Your task to perform on an android device: Show me recent news Image 0: 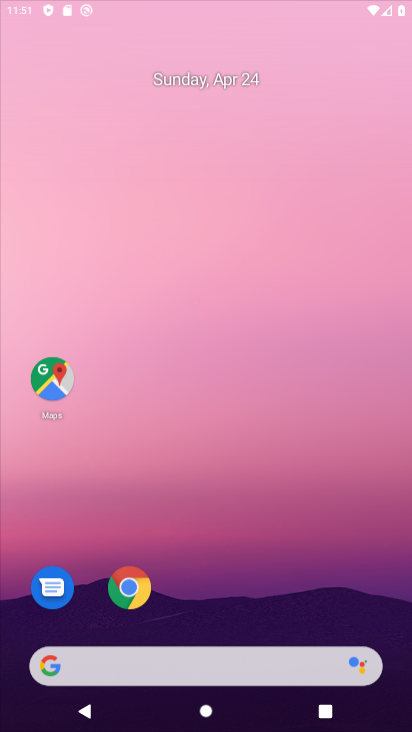
Step 0: press back button
Your task to perform on an android device: Show me recent news Image 1: 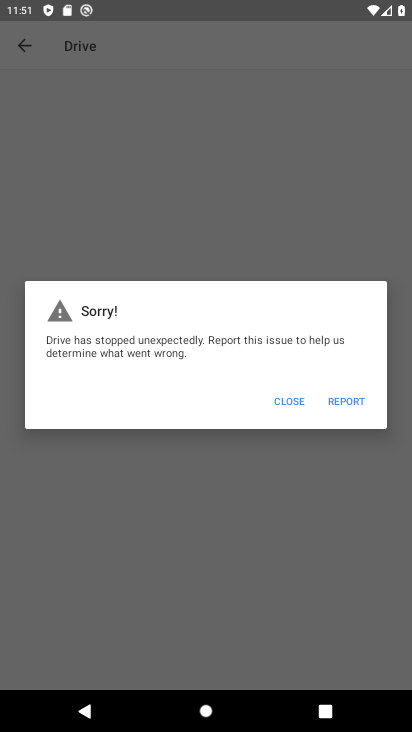
Step 1: task complete